Your task to perform on an android device: What's the news in the Bahamas? Image 0: 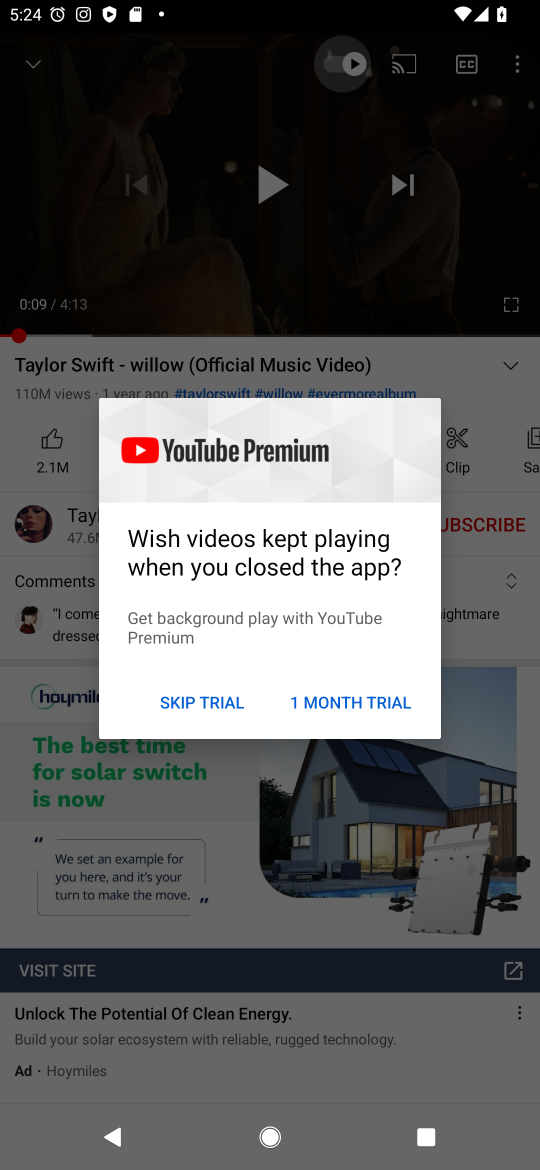
Step 0: press home button
Your task to perform on an android device: What's the news in the Bahamas? Image 1: 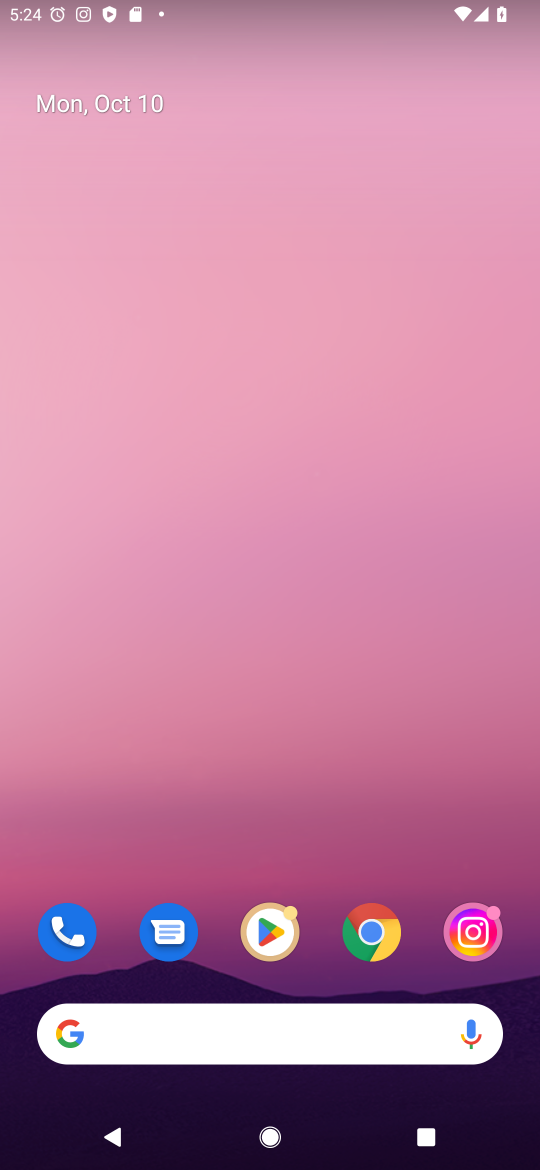
Step 1: click (230, 1032)
Your task to perform on an android device: What's the news in the Bahamas? Image 2: 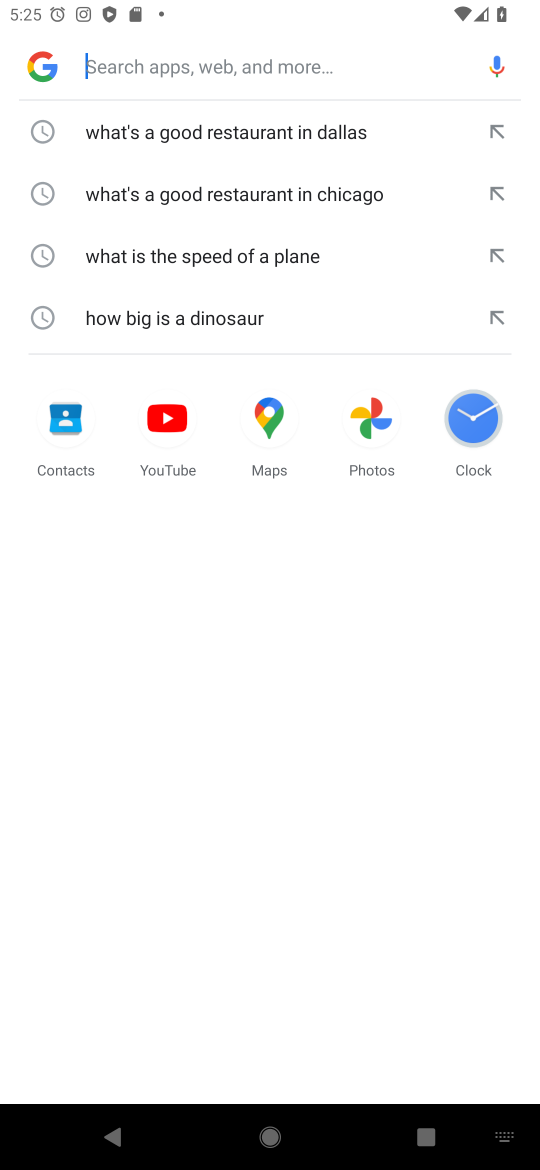
Step 2: type "What's the news in the Bahamas"
Your task to perform on an android device: What's the news in the Bahamas? Image 3: 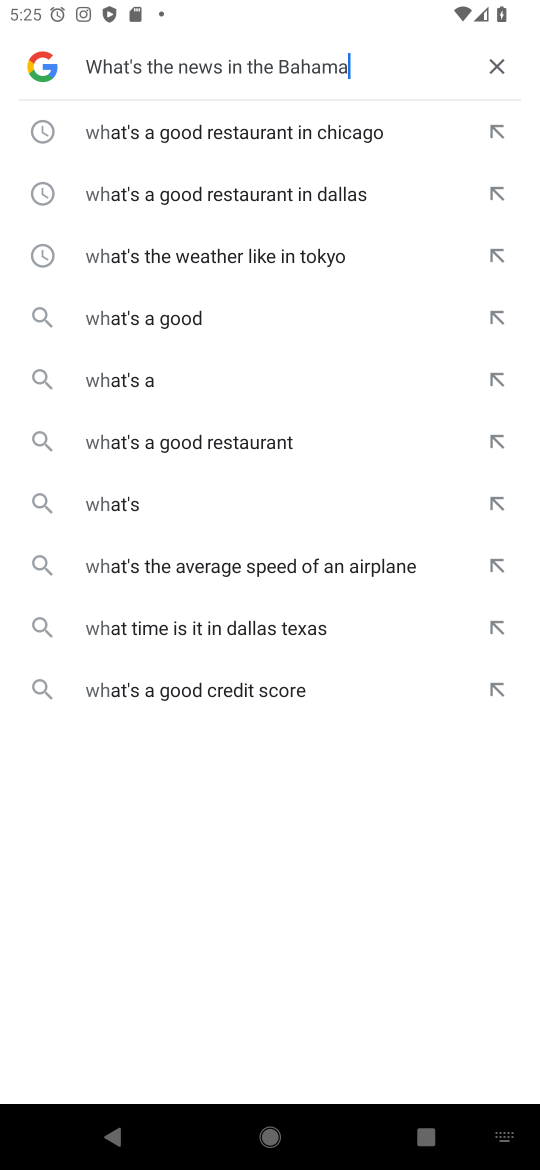
Step 3: press enter
Your task to perform on an android device: What's the news in the Bahamas? Image 4: 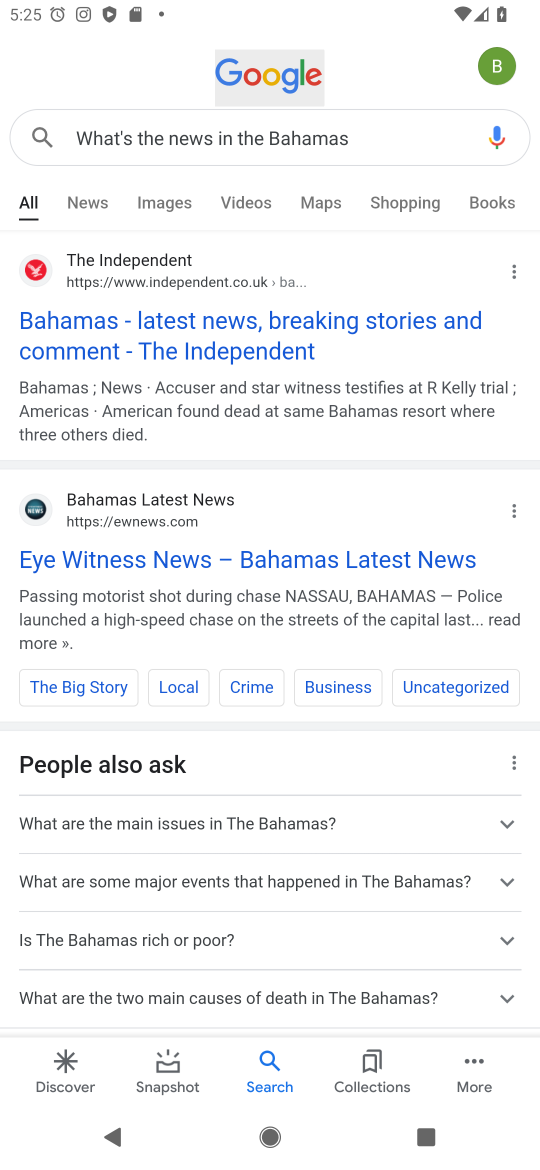
Step 4: click (323, 319)
Your task to perform on an android device: What's the news in the Bahamas? Image 5: 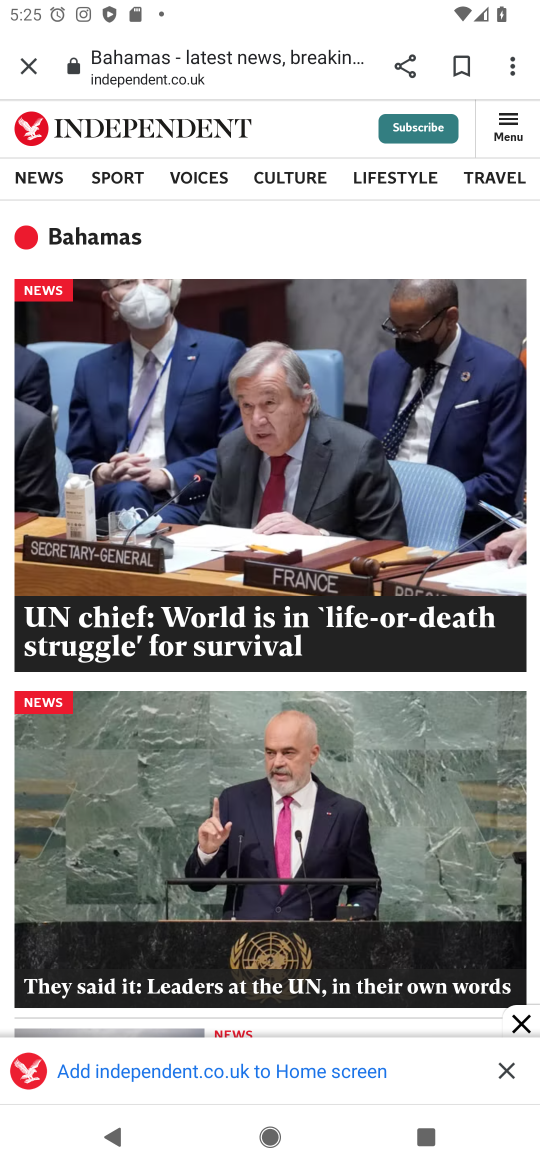
Step 5: task complete